Your task to perform on an android device: Search for Italian restaurants on Maps Image 0: 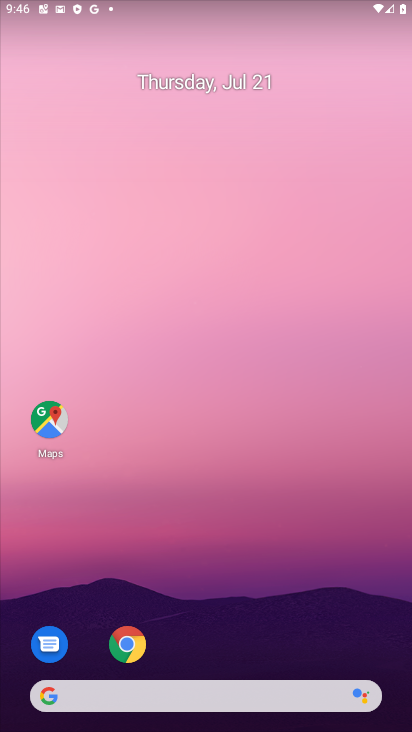
Step 0: click (47, 413)
Your task to perform on an android device: Search for Italian restaurants on Maps Image 1: 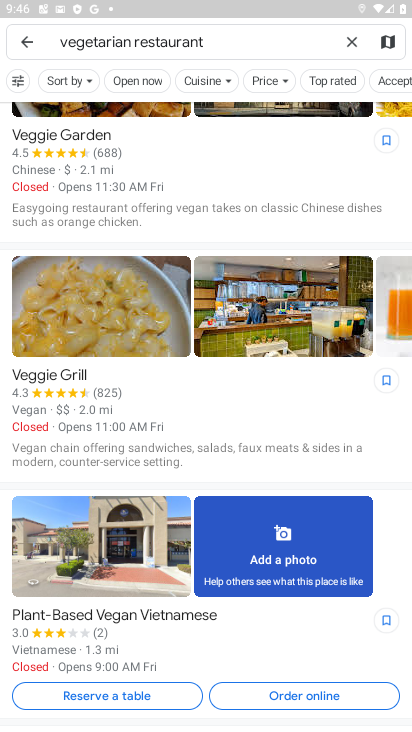
Step 1: click (351, 39)
Your task to perform on an android device: Search for Italian restaurants on Maps Image 2: 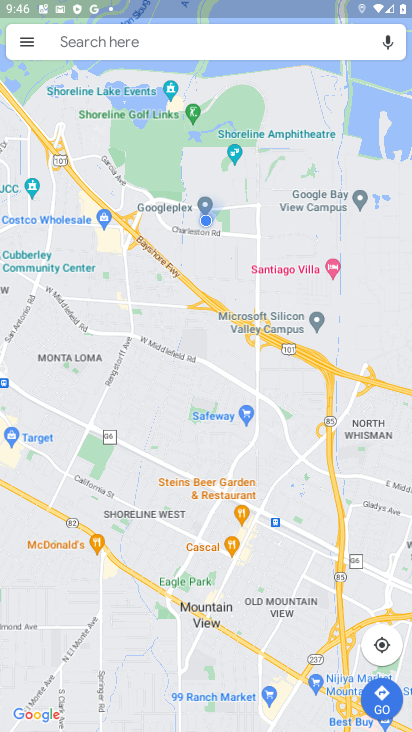
Step 2: click (94, 38)
Your task to perform on an android device: Search for Italian restaurants on Maps Image 3: 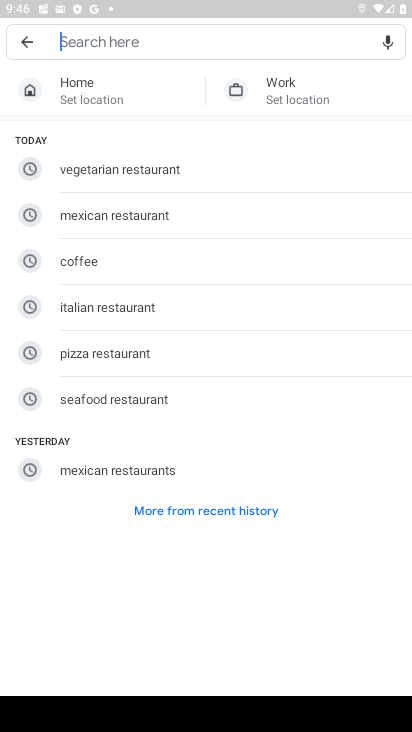
Step 3: click (116, 308)
Your task to perform on an android device: Search for Italian restaurants on Maps Image 4: 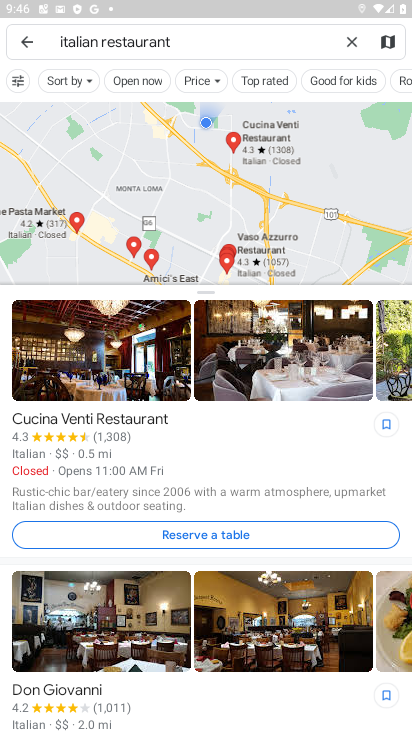
Step 4: task complete